Your task to perform on an android device: When is my next meeting? Image 0: 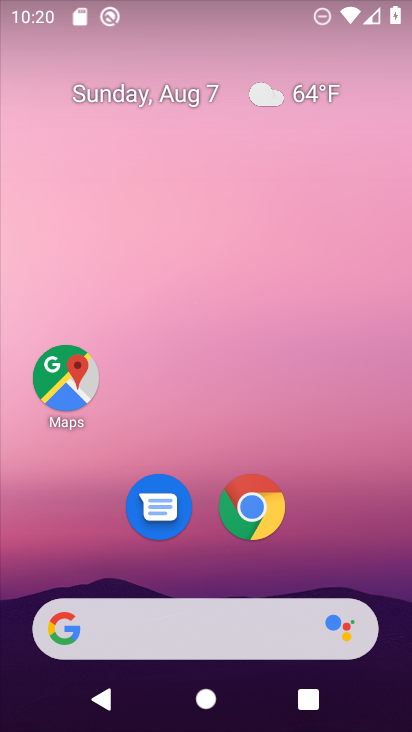
Step 0: drag from (361, 535) to (304, 38)
Your task to perform on an android device: When is my next meeting? Image 1: 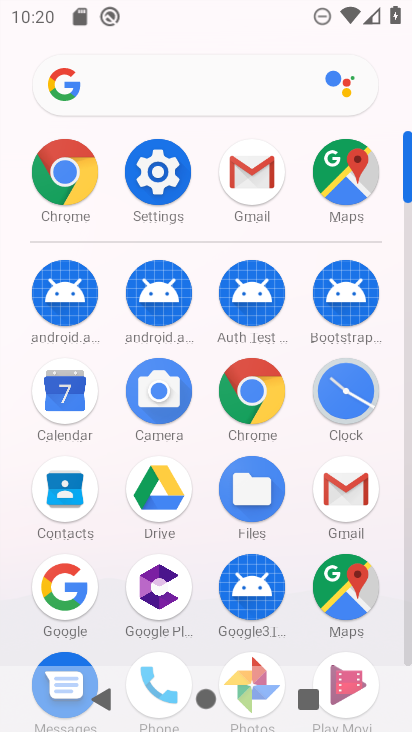
Step 1: click (61, 393)
Your task to perform on an android device: When is my next meeting? Image 2: 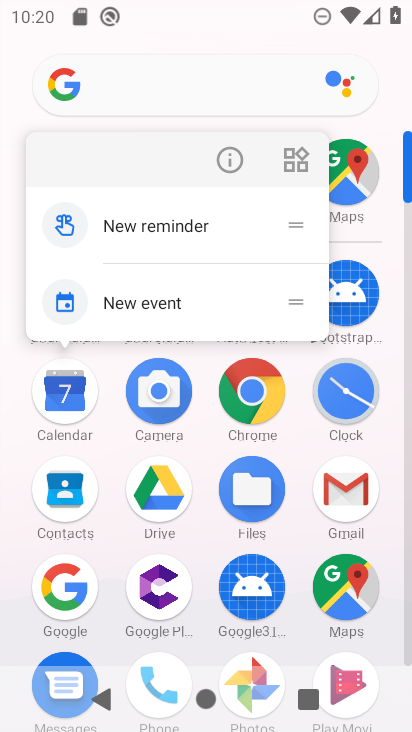
Step 2: click (64, 385)
Your task to perform on an android device: When is my next meeting? Image 3: 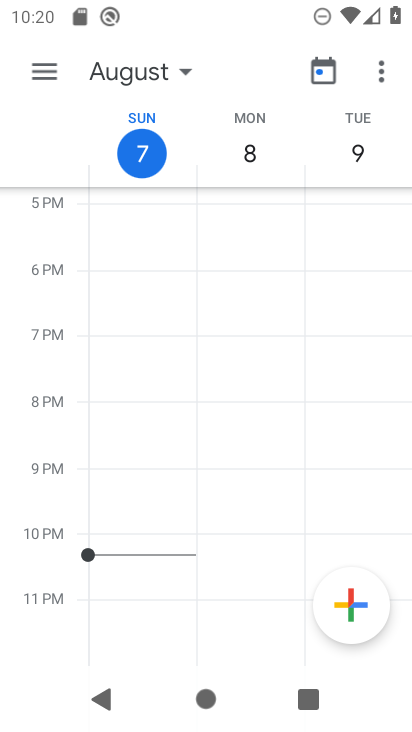
Step 3: task complete